Your task to perform on an android device: Open the calendar and show me this week's events? Image 0: 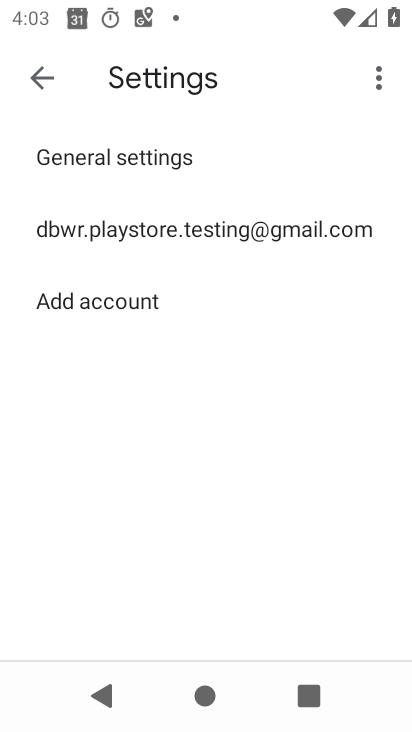
Step 0: press home button
Your task to perform on an android device: Open the calendar and show me this week's events? Image 1: 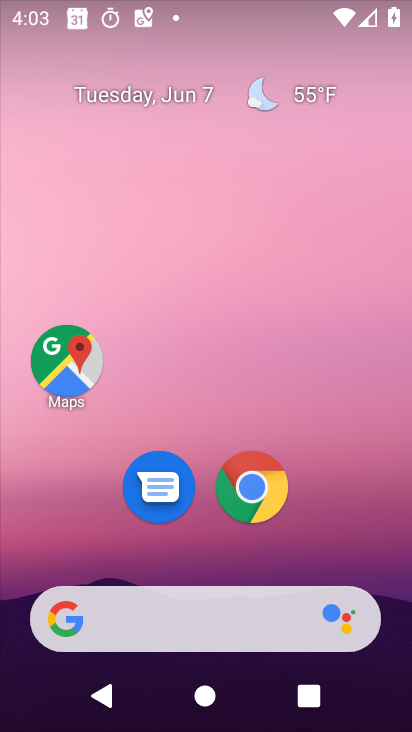
Step 1: drag from (300, 308) to (291, 53)
Your task to perform on an android device: Open the calendar and show me this week's events? Image 2: 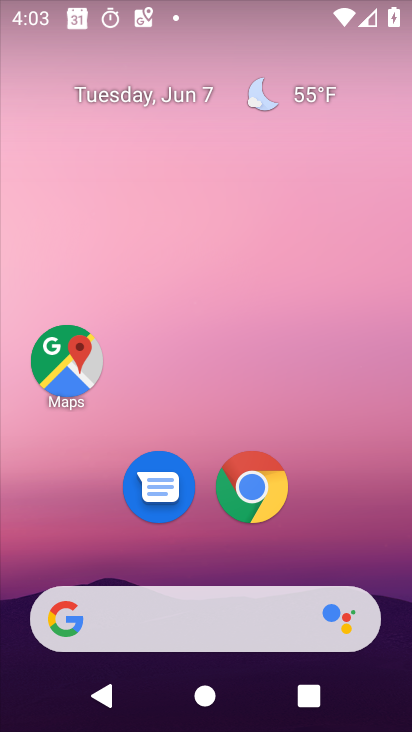
Step 2: drag from (316, 554) to (302, 115)
Your task to perform on an android device: Open the calendar and show me this week's events? Image 3: 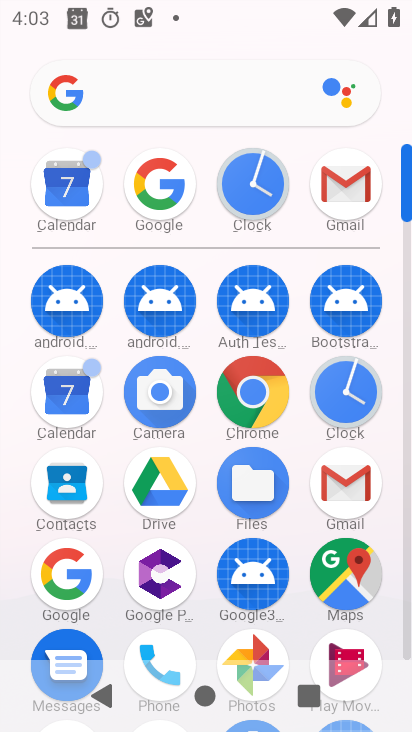
Step 3: click (70, 394)
Your task to perform on an android device: Open the calendar and show me this week's events? Image 4: 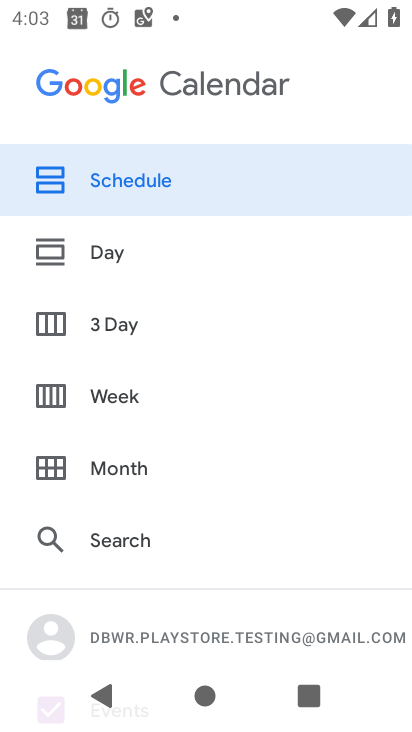
Step 4: press back button
Your task to perform on an android device: Open the calendar and show me this week's events? Image 5: 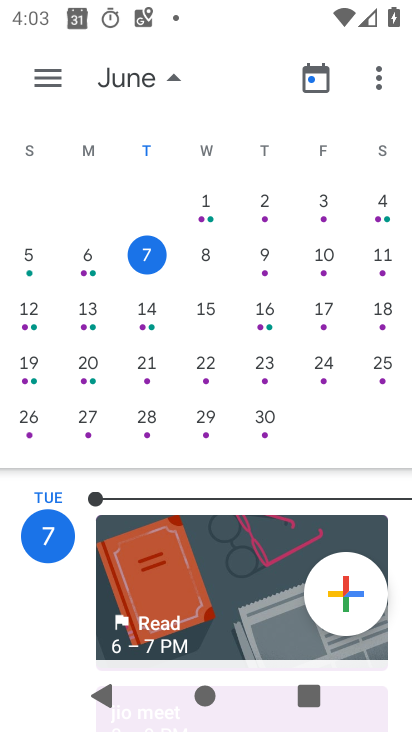
Step 5: click (210, 256)
Your task to perform on an android device: Open the calendar and show me this week's events? Image 6: 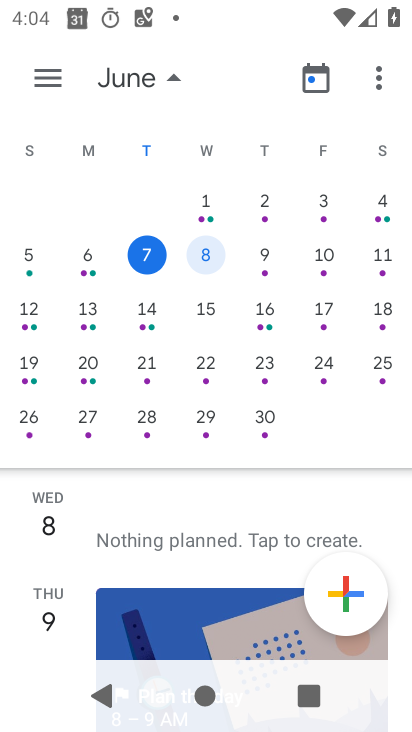
Step 6: task complete